Your task to perform on an android device: Go to Wikipedia Image 0: 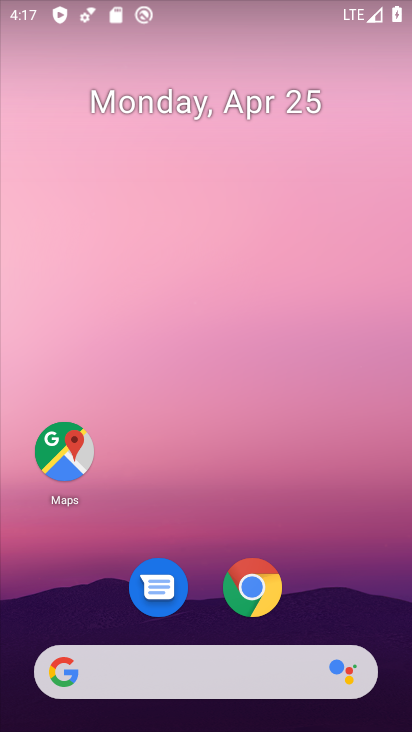
Step 0: click (258, 591)
Your task to perform on an android device: Go to Wikipedia Image 1: 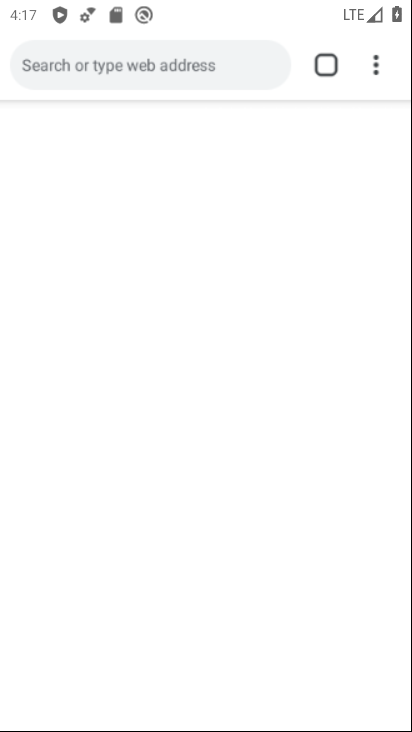
Step 1: click (88, 68)
Your task to perform on an android device: Go to Wikipedia Image 2: 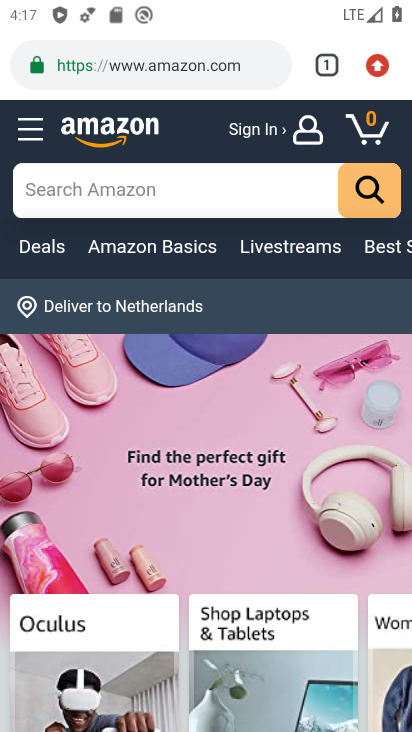
Step 2: click (154, 67)
Your task to perform on an android device: Go to Wikipedia Image 3: 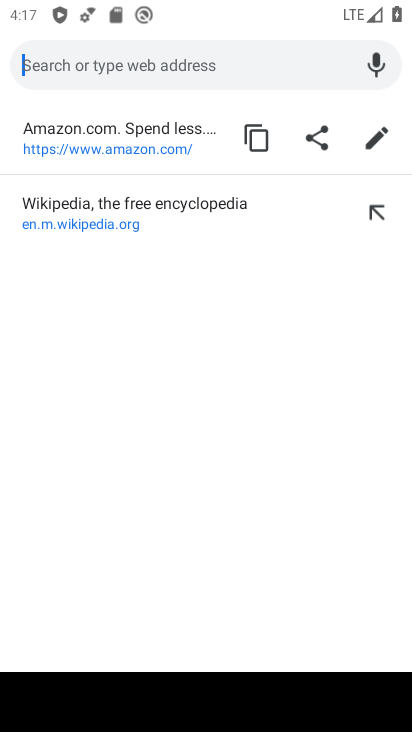
Step 3: click (82, 215)
Your task to perform on an android device: Go to Wikipedia Image 4: 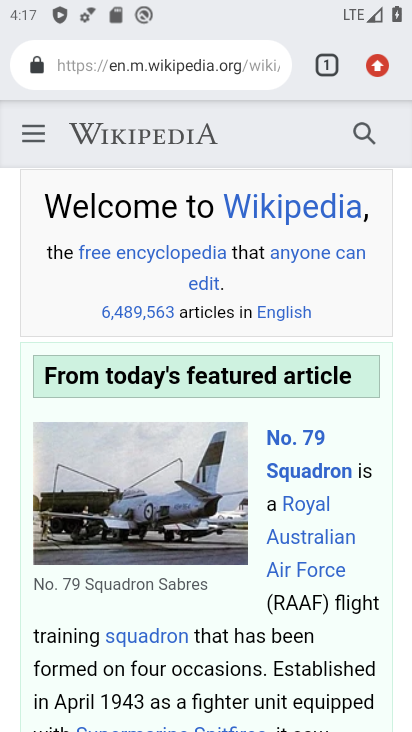
Step 4: task complete